Your task to perform on an android device: Search for "amazon basics triple a" on target, select the first entry, and add it to the cart. Image 0: 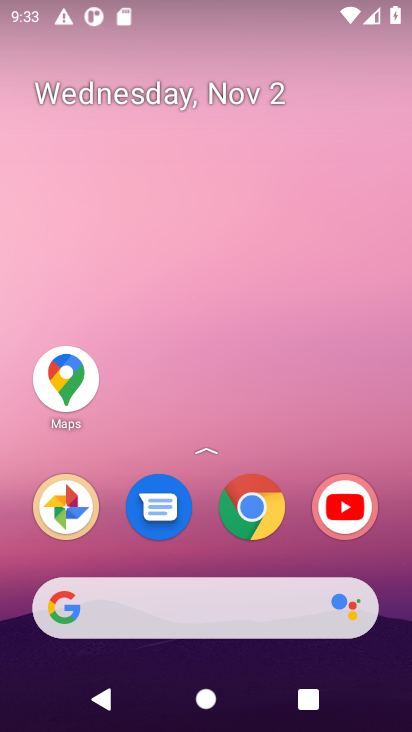
Step 0: click (232, 594)
Your task to perform on an android device: Search for "amazon basics triple a" on target, select the first entry, and add it to the cart. Image 1: 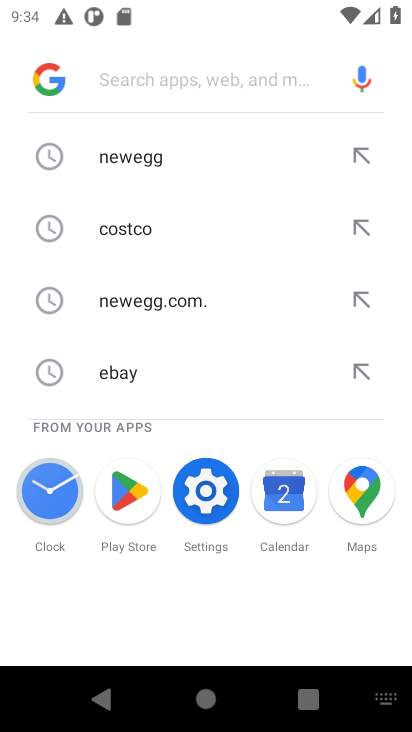
Step 1: type "amazon"
Your task to perform on an android device: Search for "amazon basics triple a" on target, select the first entry, and add it to the cart. Image 2: 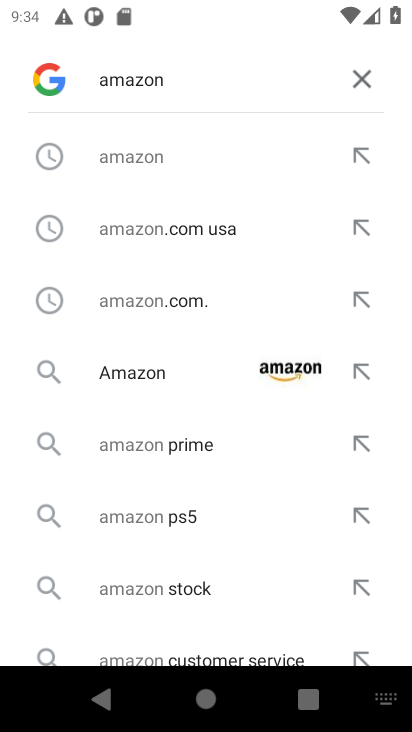
Step 2: click (167, 155)
Your task to perform on an android device: Search for "amazon basics triple a" on target, select the first entry, and add it to the cart. Image 3: 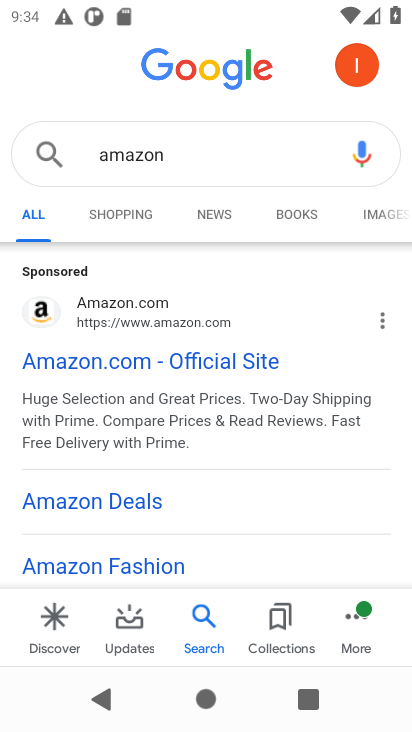
Step 3: click (180, 366)
Your task to perform on an android device: Search for "amazon basics triple a" on target, select the first entry, and add it to the cart. Image 4: 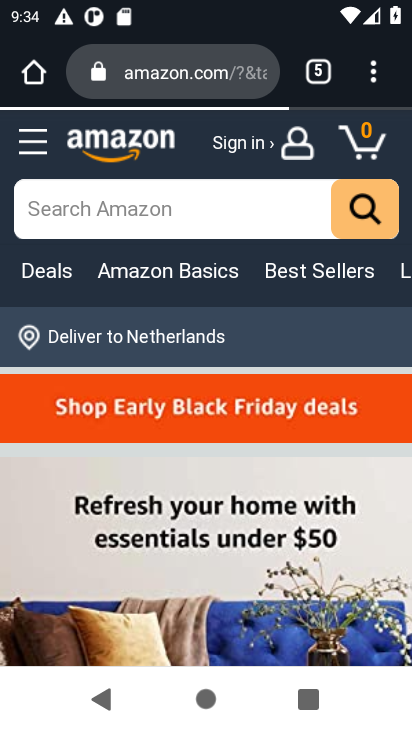
Step 4: click (231, 204)
Your task to perform on an android device: Search for "amazon basics triple a" on target, select the first entry, and add it to the cart. Image 5: 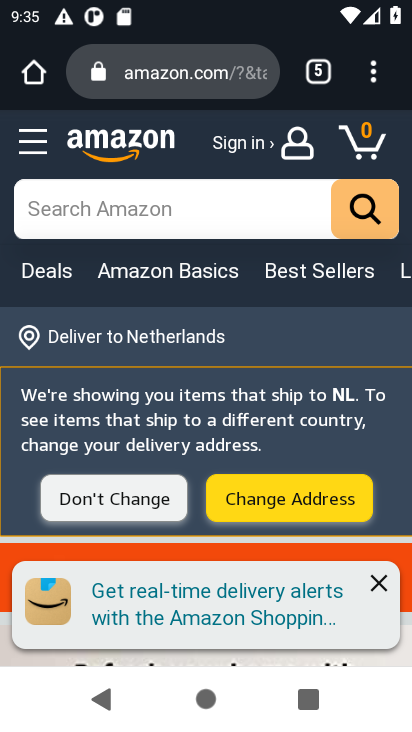
Step 5: click (186, 228)
Your task to perform on an android device: Search for "amazon basics triple a" on target, select the first entry, and add it to the cart. Image 6: 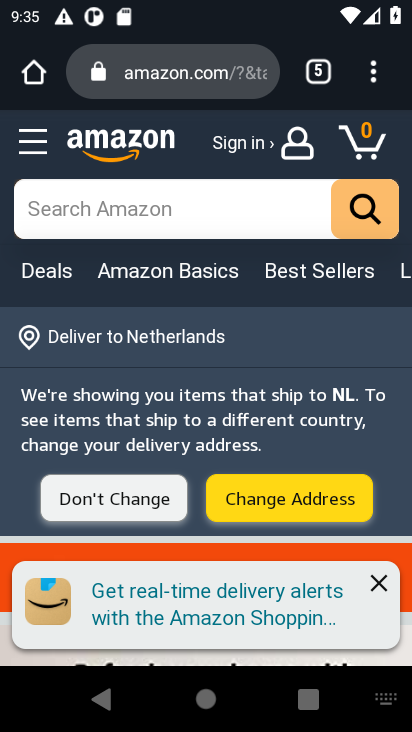
Step 6: type "amazon basic triple a"
Your task to perform on an android device: Search for "amazon basics triple a" on target, select the first entry, and add it to the cart. Image 7: 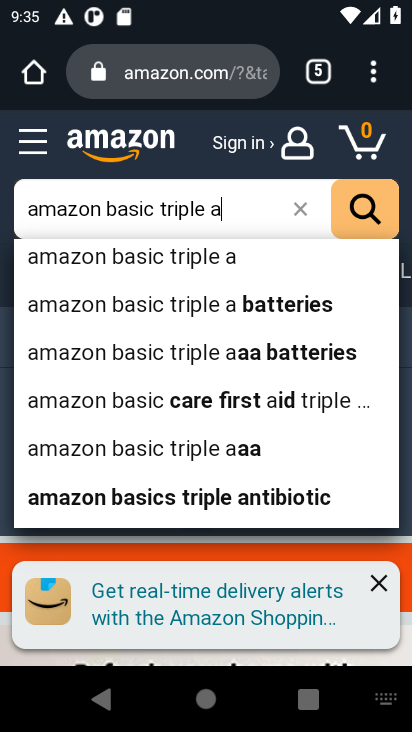
Step 7: click (172, 251)
Your task to perform on an android device: Search for "amazon basics triple a" on target, select the first entry, and add it to the cart. Image 8: 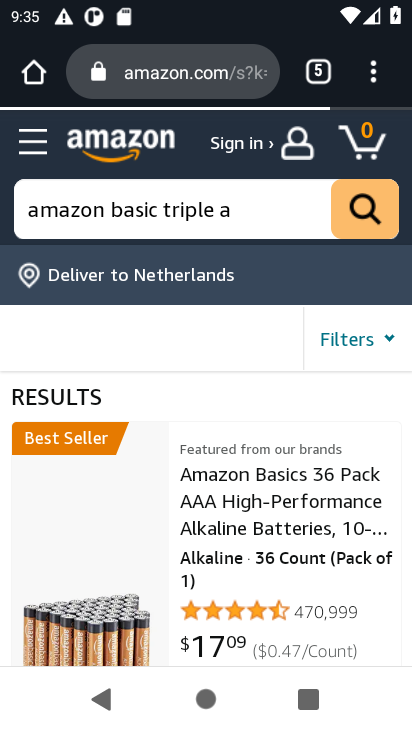
Step 8: task complete